Your task to perform on an android device: turn on showing notifications on the lock screen Image 0: 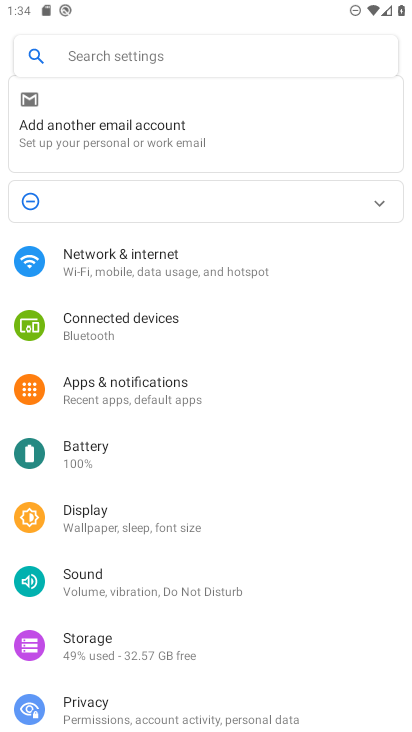
Step 0: click (128, 397)
Your task to perform on an android device: turn on showing notifications on the lock screen Image 1: 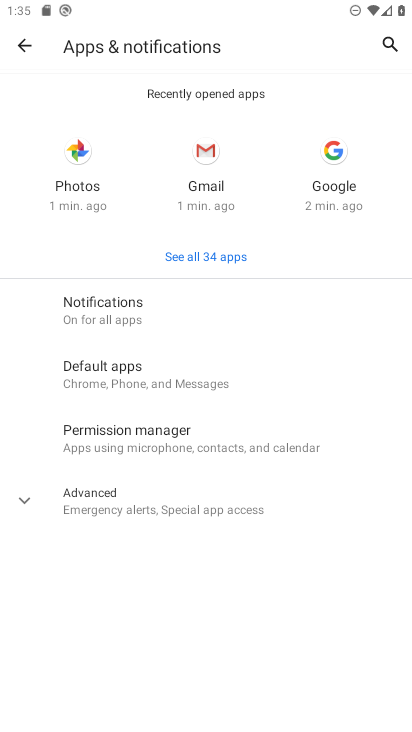
Step 1: click (137, 310)
Your task to perform on an android device: turn on showing notifications on the lock screen Image 2: 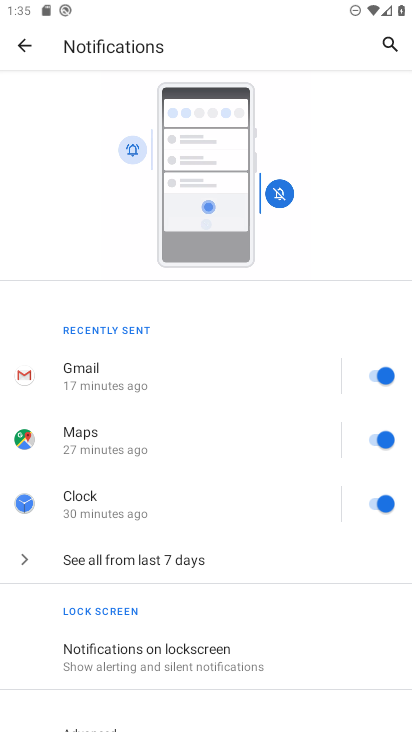
Step 2: click (160, 653)
Your task to perform on an android device: turn on showing notifications on the lock screen Image 3: 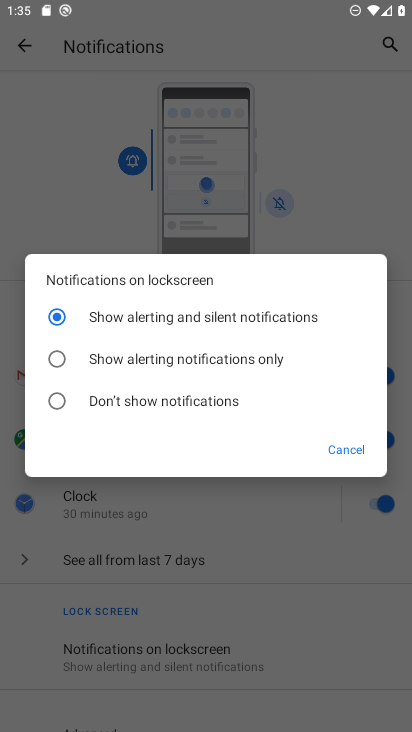
Step 3: click (166, 323)
Your task to perform on an android device: turn on showing notifications on the lock screen Image 4: 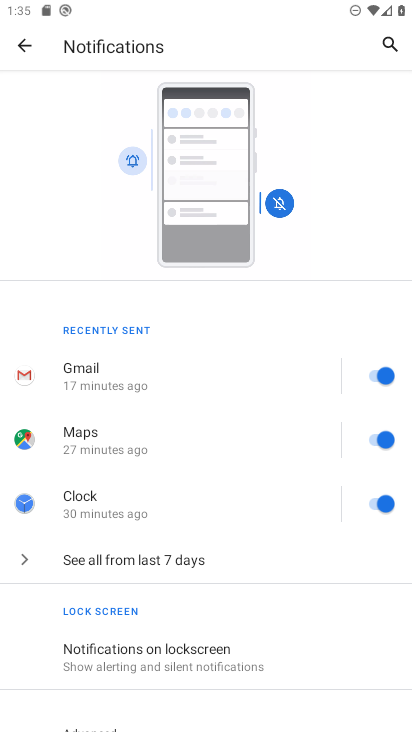
Step 4: task complete